Your task to perform on an android device: see creations saved in the google photos Image 0: 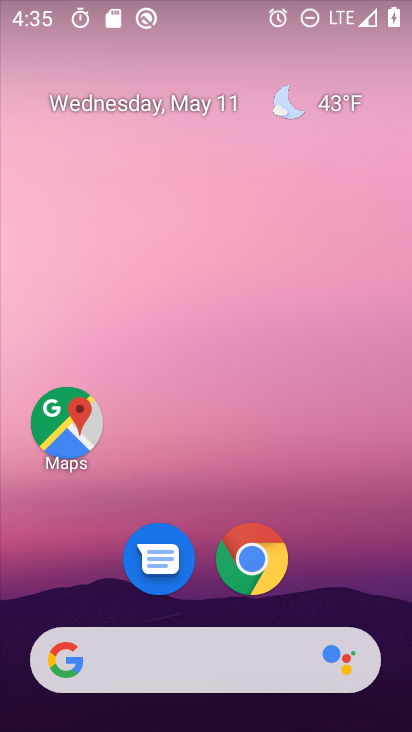
Step 0: drag from (338, 477) to (267, 87)
Your task to perform on an android device: see creations saved in the google photos Image 1: 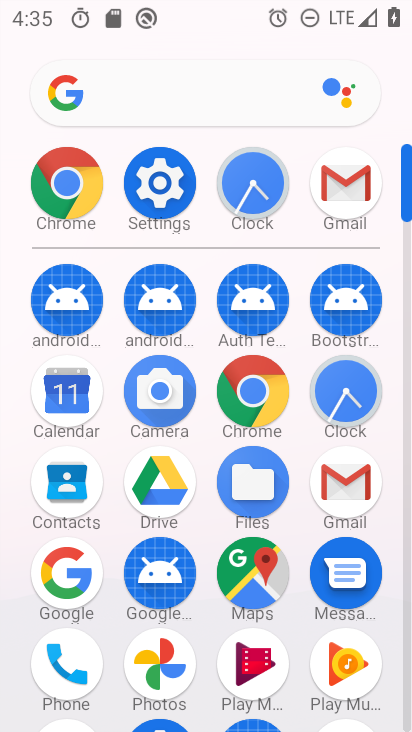
Step 1: click (175, 660)
Your task to perform on an android device: see creations saved in the google photos Image 2: 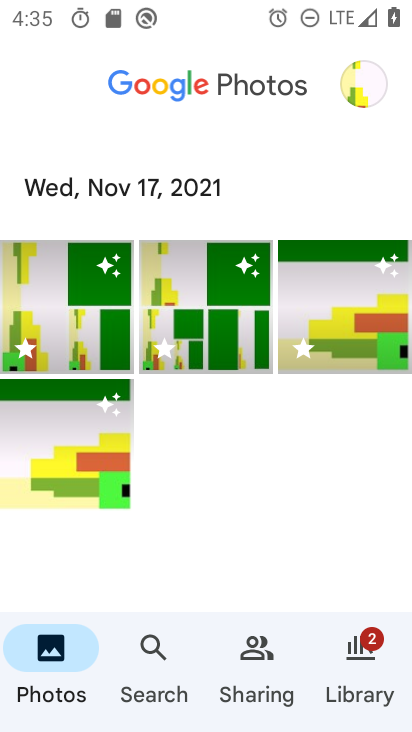
Step 2: click (160, 645)
Your task to perform on an android device: see creations saved in the google photos Image 3: 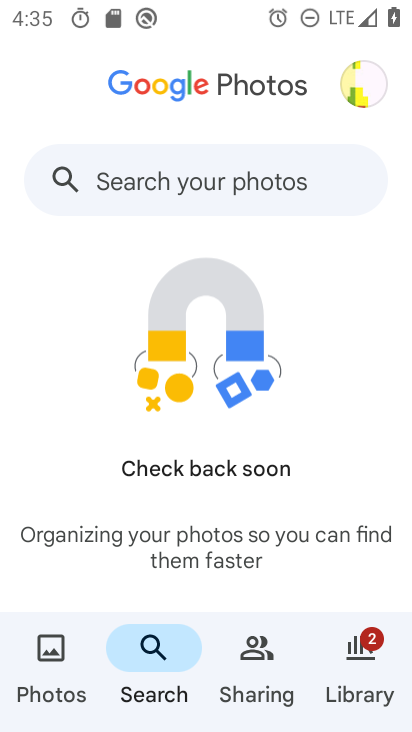
Step 3: click (196, 174)
Your task to perform on an android device: see creations saved in the google photos Image 4: 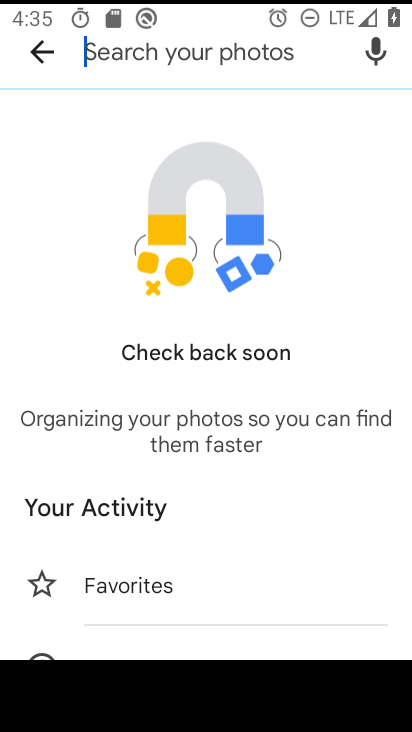
Step 4: type "creations"
Your task to perform on an android device: see creations saved in the google photos Image 5: 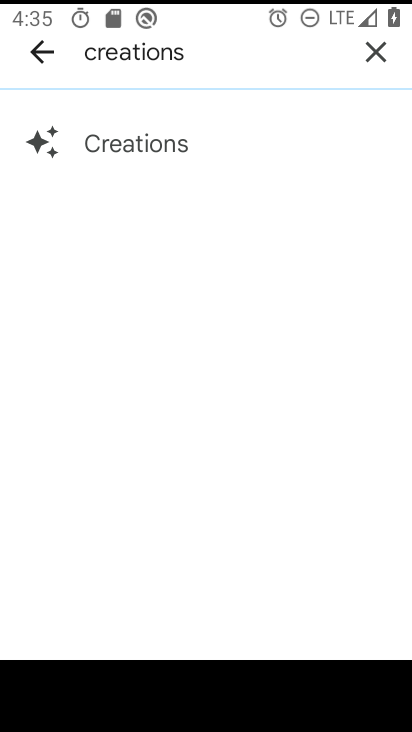
Step 5: click (155, 154)
Your task to perform on an android device: see creations saved in the google photos Image 6: 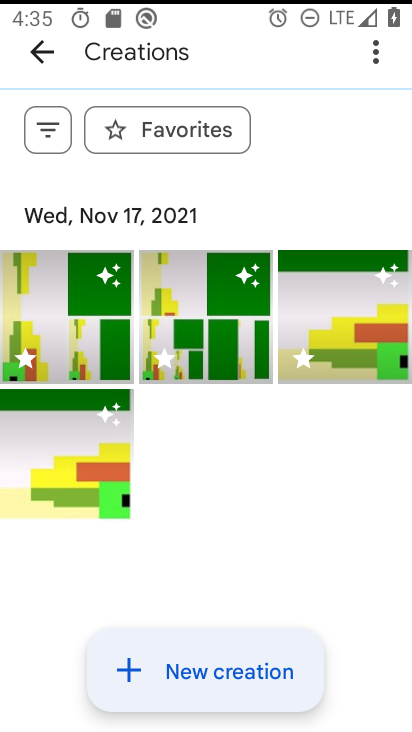
Step 6: task complete